Your task to perform on an android device: toggle sleep mode Image 0: 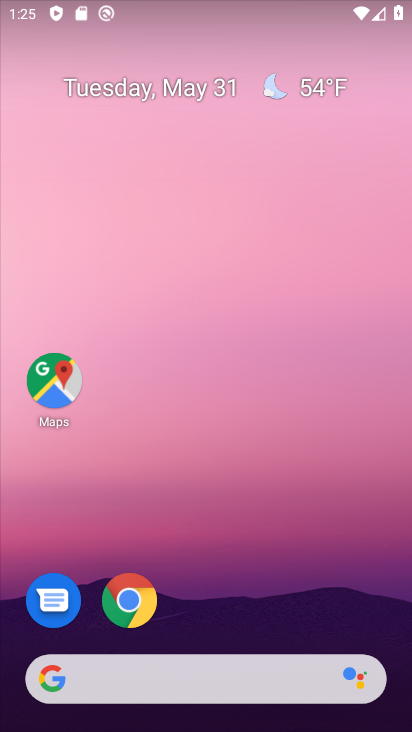
Step 0: click (318, 86)
Your task to perform on an android device: toggle sleep mode Image 1: 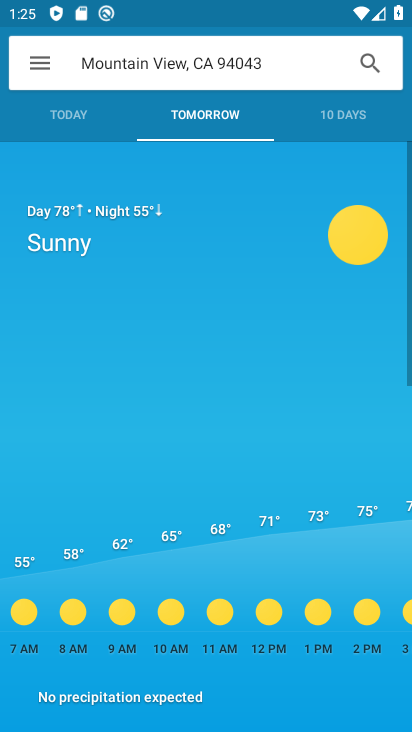
Step 1: press back button
Your task to perform on an android device: toggle sleep mode Image 2: 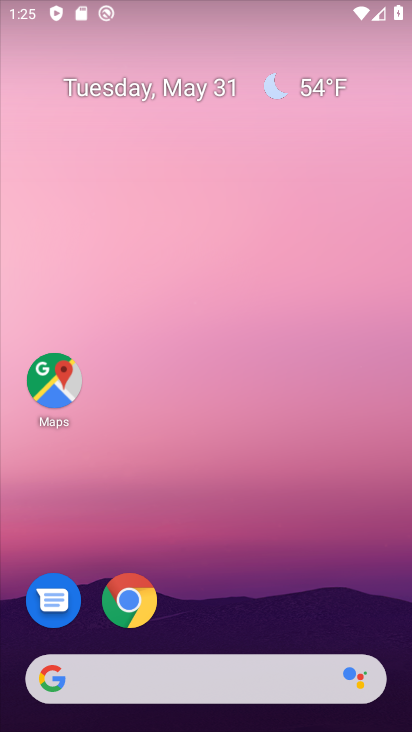
Step 2: drag from (313, 575) to (245, 70)
Your task to perform on an android device: toggle sleep mode Image 3: 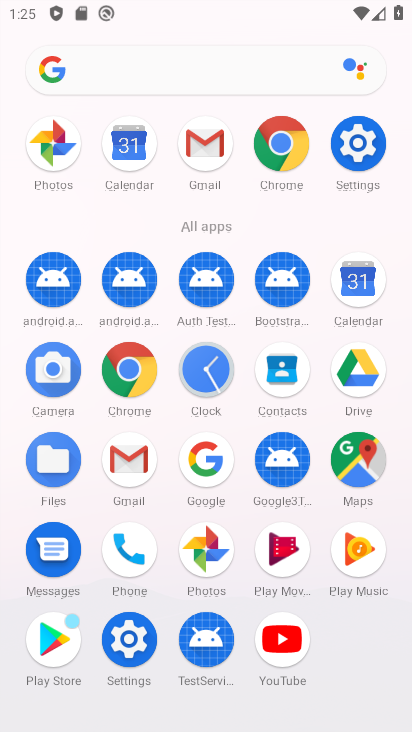
Step 3: click (375, 156)
Your task to perform on an android device: toggle sleep mode Image 4: 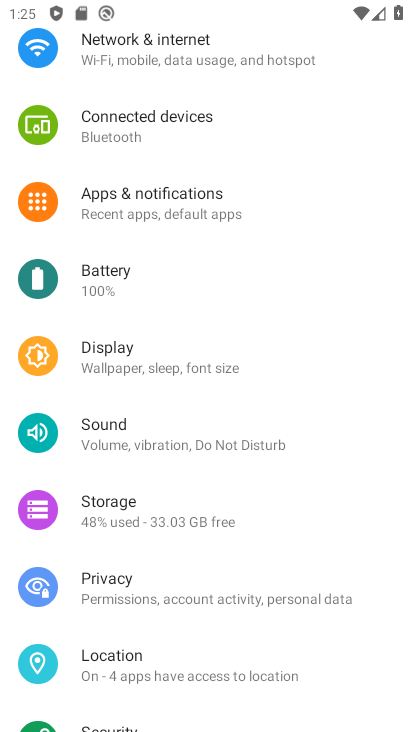
Step 4: click (185, 355)
Your task to perform on an android device: toggle sleep mode Image 5: 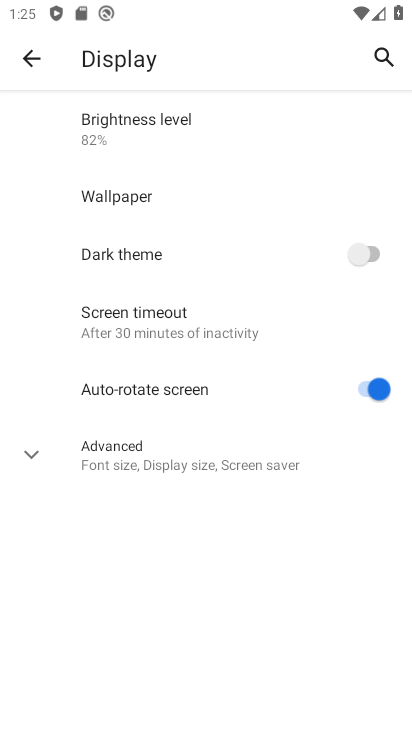
Step 5: drag from (253, 479) to (266, 112)
Your task to perform on an android device: toggle sleep mode Image 6: 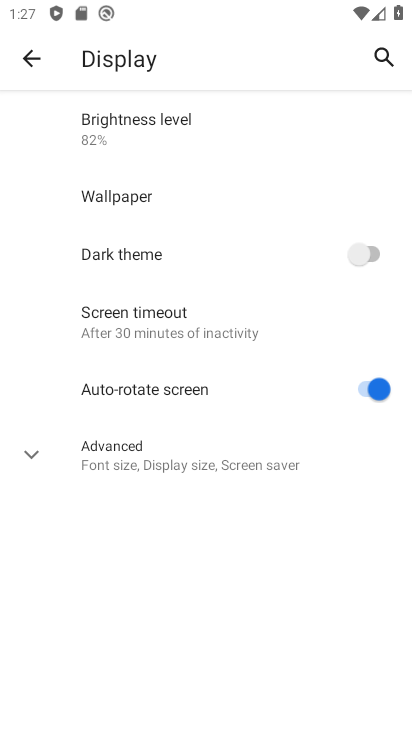
Step 6: click (226, 497)
Your task to perform on an android device: toggle sleep mode Image 7: 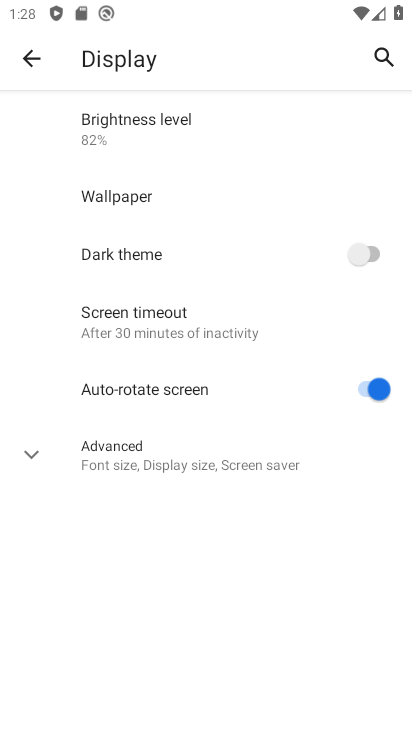
Step 7: click (134, 473)
Your task to perform on an android device: toggle sleep mode Image 8: 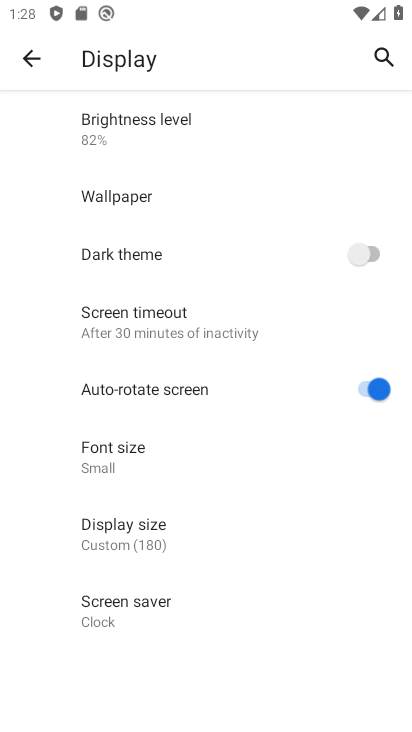
Step 8: task complete